Your task to perform on an android device: change notification settings in the gmail app Image 0: 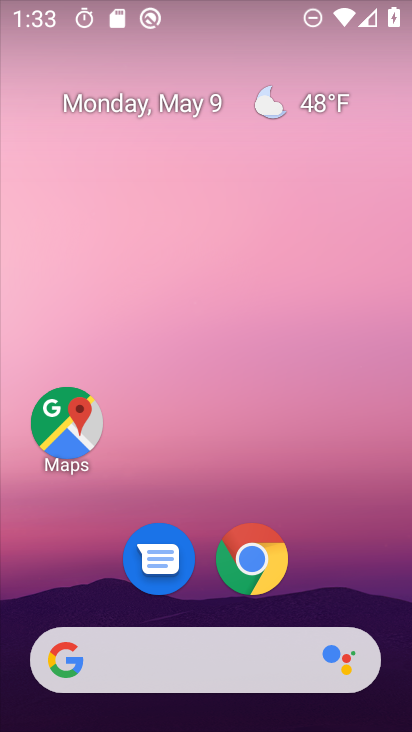
Step 0: drag from (192, 544) to (230, 281)
Your task to perform on an android device: change notification settings in the gmail app Image 1: 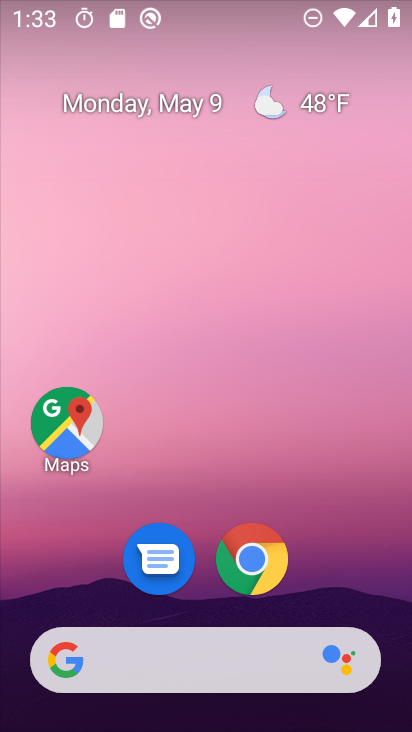
Step 1: drag from (199, 619) to (237, 119)
Your task to perform on an android device: change notification settings in the gmail app Image 2: 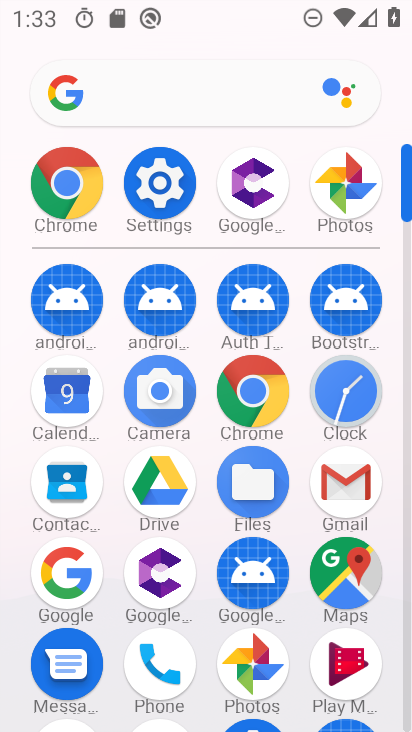
Step 2: click (321, 492)
Your task to perform on an android device: change notification settings in the gmail app Image 3: 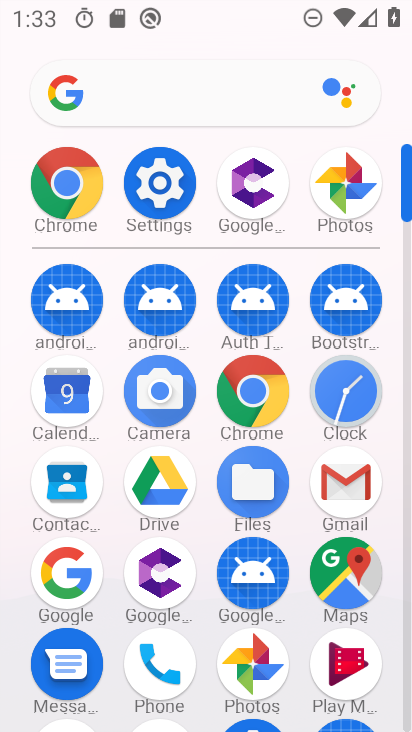
Step 3: click (322, 492)
Your task to perform on an android device: change notification settings in the gmail app Image 4: 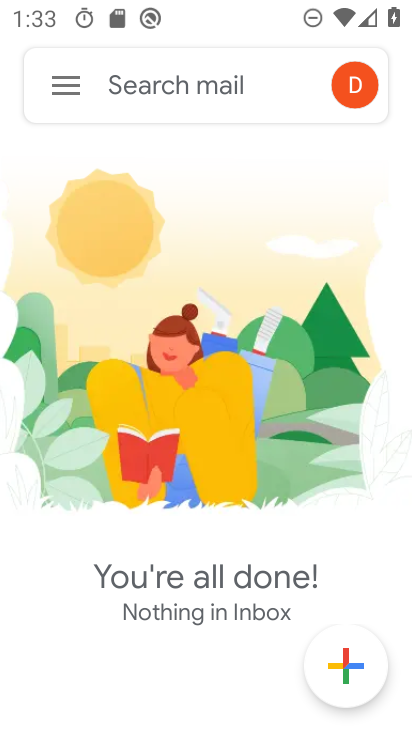
Step 4: drag from (221, 531) to (233, 190)
Your task to perform on an android device: change notification settings in the gmail app Image 5: 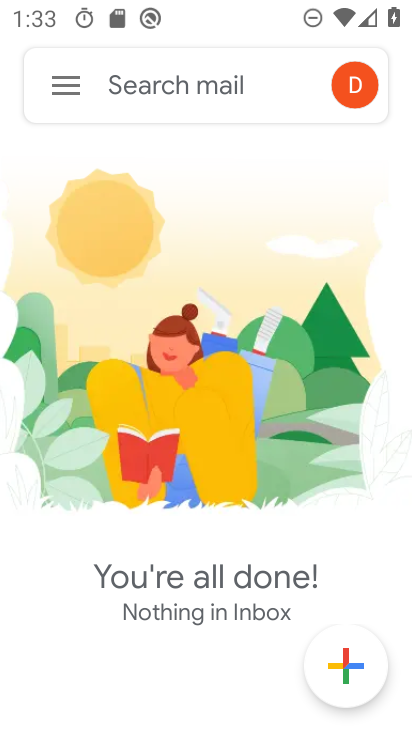
Step 5: drag from (189, 618) to (244, 204)
Your task to perform on an android device: change notification settings in the gmail app Image 6: 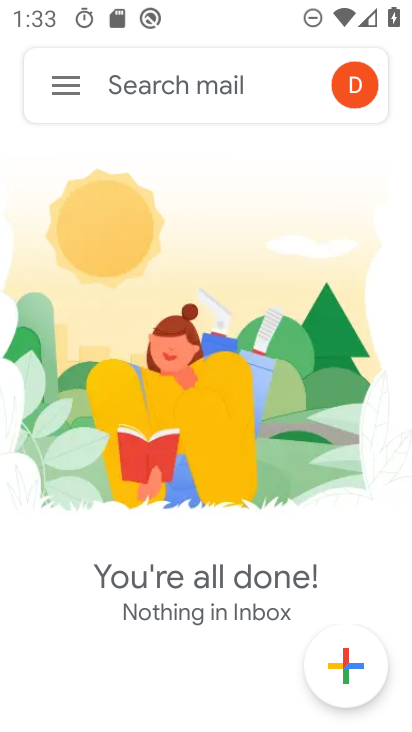
Step 6: click (67, 93)
Your task to perform on an android device: change notification settings in the gmail app Image 7: 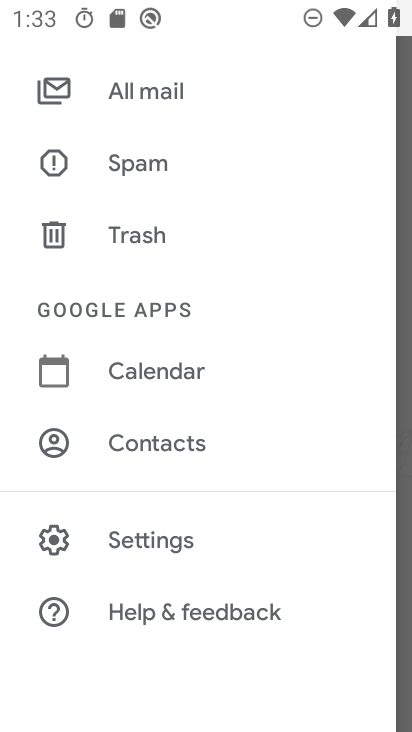
Step 7: click (179, 529)
Your task to perform on an android device: change notification settings in the gmail app Image 8: 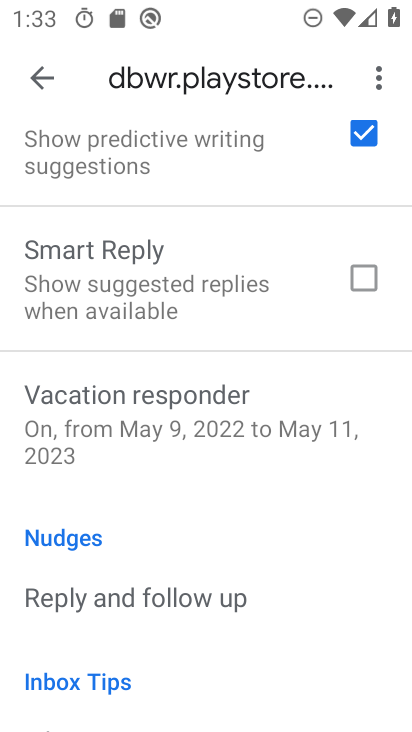
Step 8: drag from (214, 447) to (250, 723)
Your task to perform on an android device: change notification settings in the gmail app Image 9: 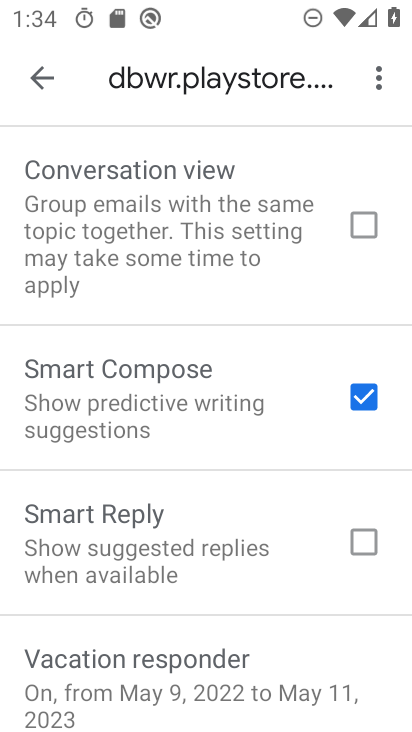
Step 9: drag from (232, 251) to (195, 659)
Your task to perform on an android device: change notification settings in the gmail app Image 10: 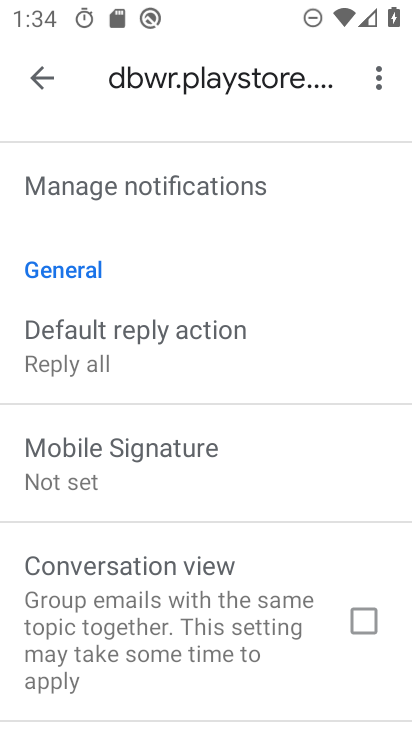
Step 10: click (224, 196)
Your task to perform on an android device: change notification settings in the gmail app Image 11: 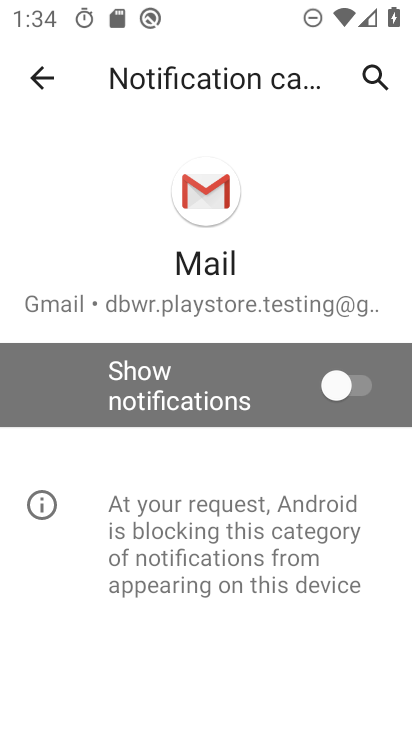
Step 11: click (286, 405)
Your task to perform on an android device: change notification settings in the gmail app Image 12: 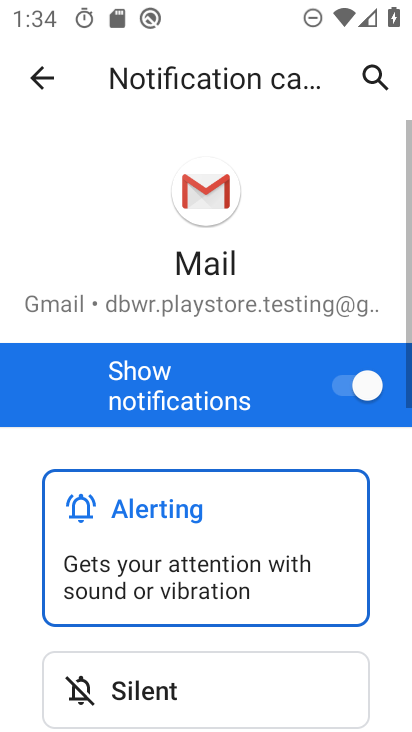
Step 12: task complete